Your task to perform on an android device: check android version Image 0: 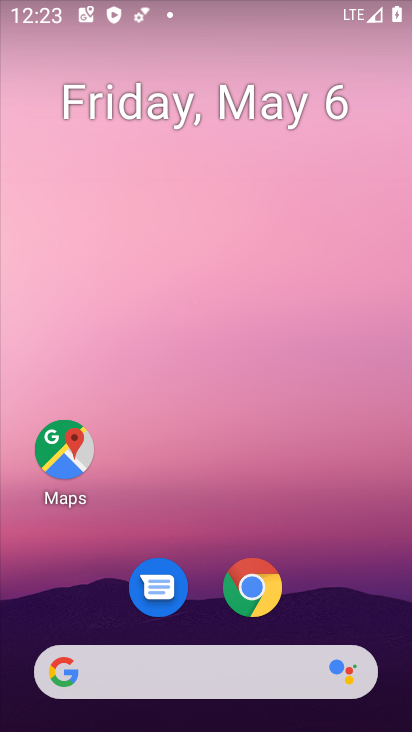
Step 0: drag from (181, 637) to (264, 129)
Your task to perform on an android device: check android version Image 1: 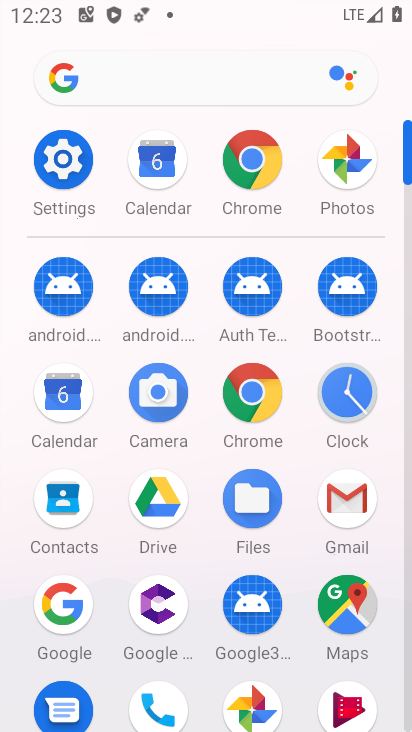
Step 1: click (66, 148)
Your task to perform on an android device: check android version Image 2: 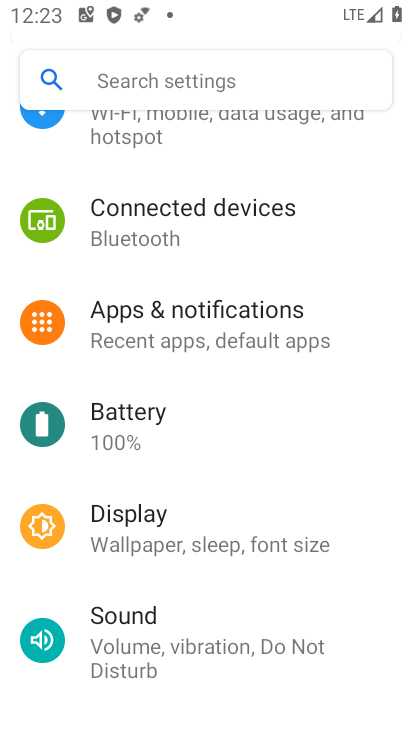
Step 2: drag from (217, 717) to (301, 45)
Your task to perform on an android device: check android version Image 3: 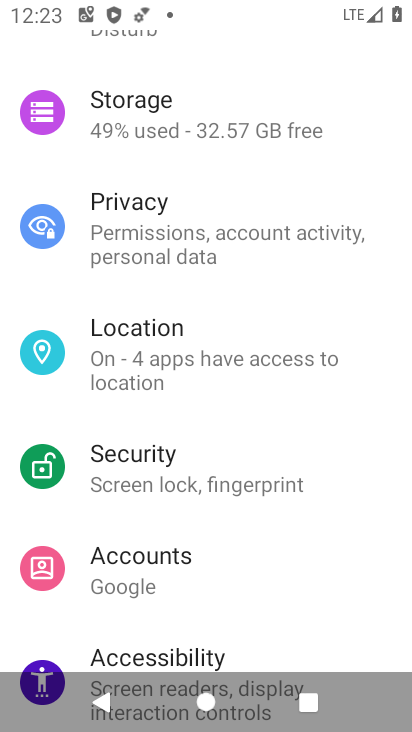
Step 3: drag from (180, 610) to (318, 20)
Your task to perform on an android device: check android version Image 4: 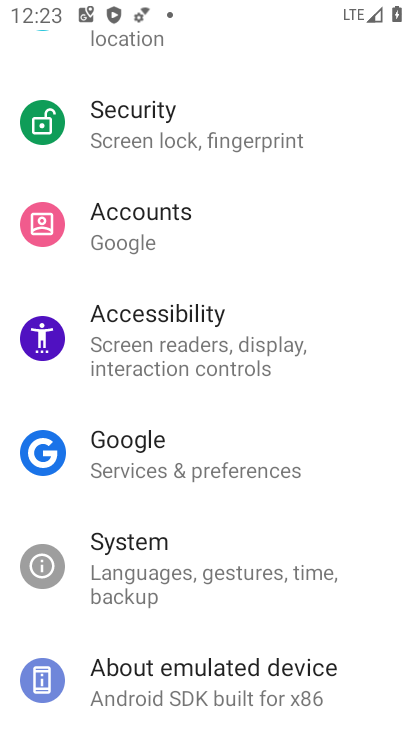
Step 4: drag from (177, 638) to (275, 52)
Your task to perform on an android device: check android version Image 5: 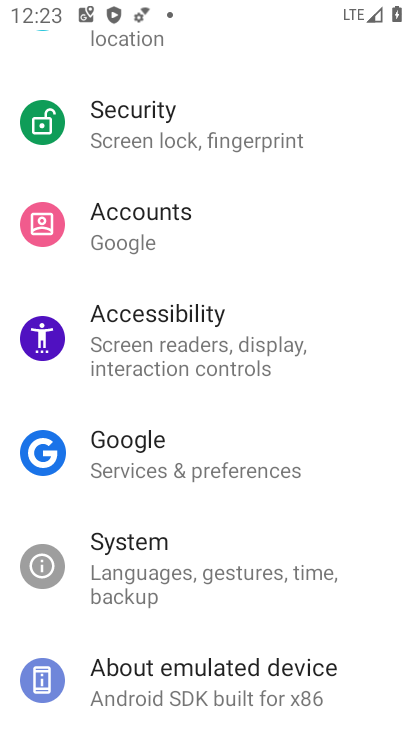
Step 5: click (181, 695)
Your task to perform on an android device: check android version Image 6: 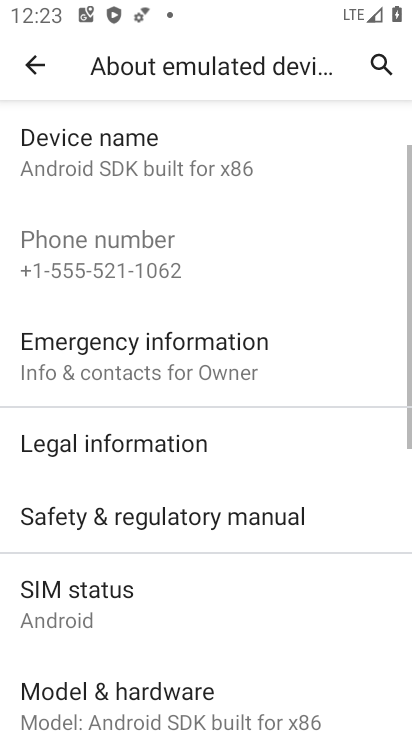
Step 6: drag from (166, 696) to (354, 56)
Your task to perform on an android device: check android version Image 7: 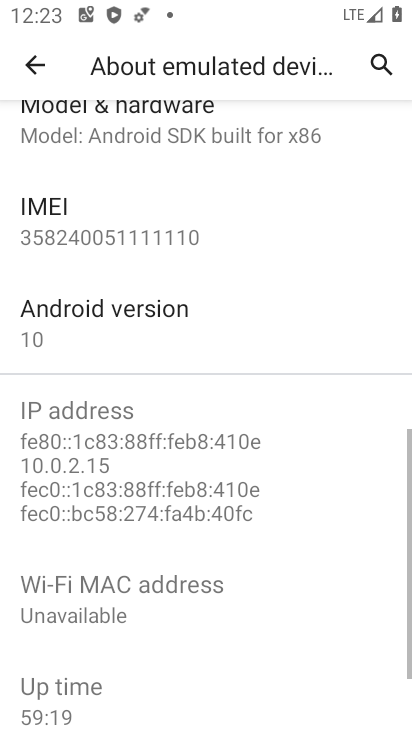
Step 7: click (48, 317)
Your task to perform on an android device: check android version Image 8: 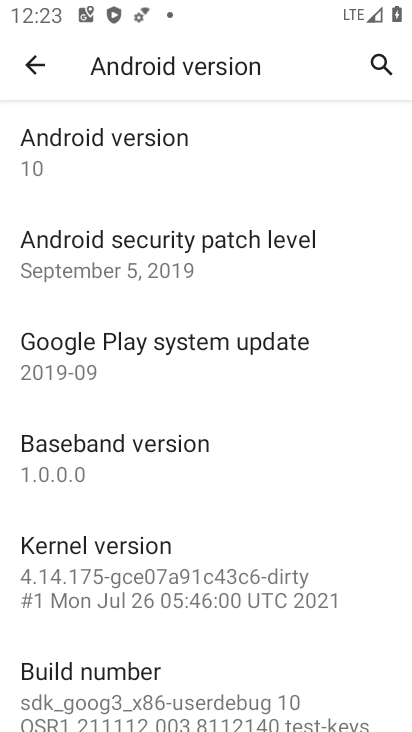
Step 8: click (124, 162)
Your task to perform on an android device: check android version Image 9: 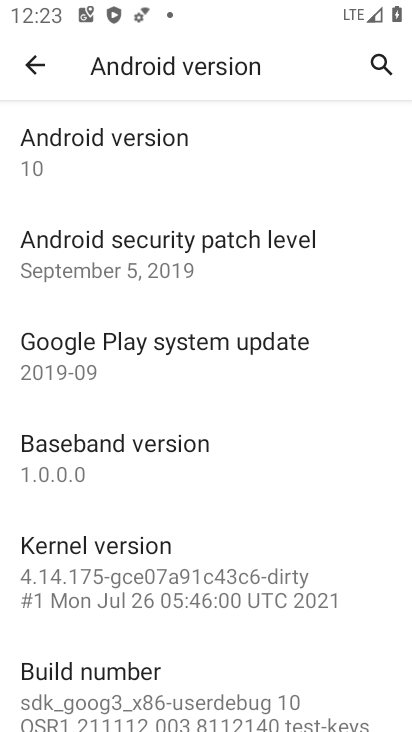
Step 9: task complete